Your task to perform on an android device: set default search engine in the chrome app Image 0: 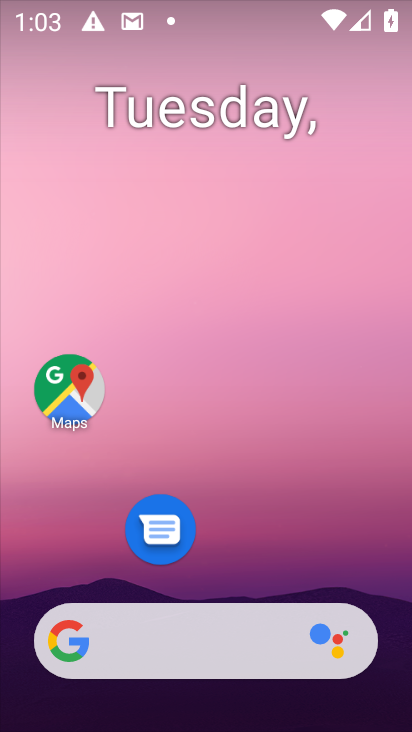
Step 0: drag from (293, 582) to (322, 105)
Your task to perform on an android device: set default search engine in the chrome app Image 1: 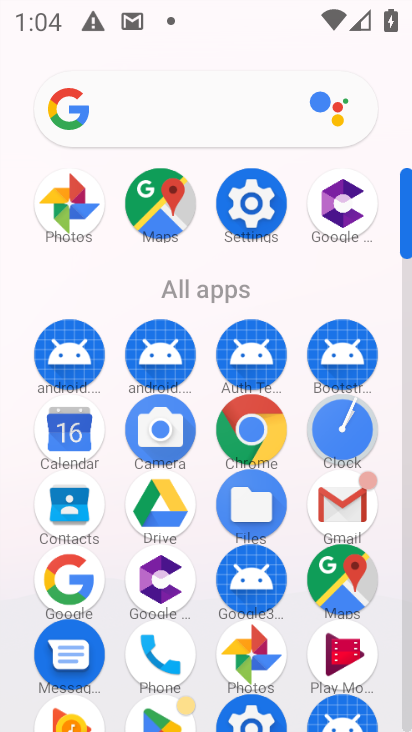
Step 1: click (258, 444)
Your task to perform on an android device: set default search engine in the chrome app Image 2: 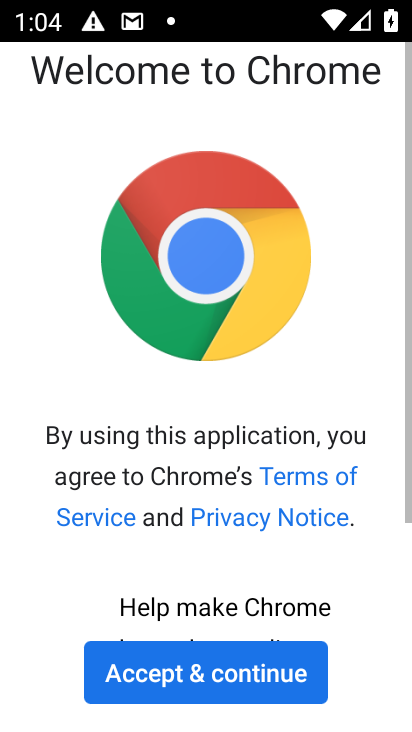
Step 2: task complete